Your task to perform on an android device: Show me the alarms in the clock app Image 0: 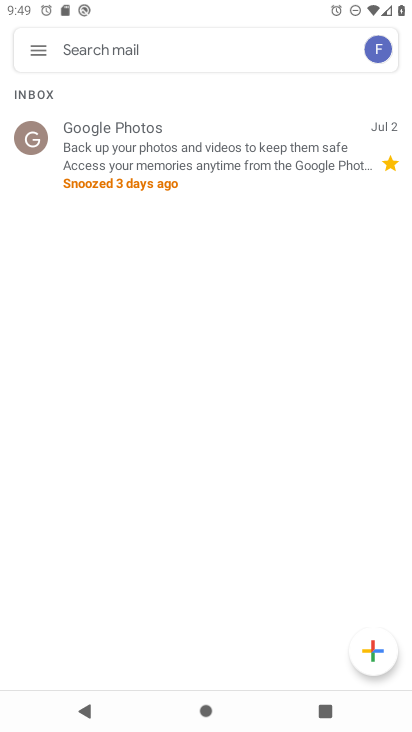
Step 0: press home button
Your task to perform on an android device: Show me the alarms in the clock app Image 1: 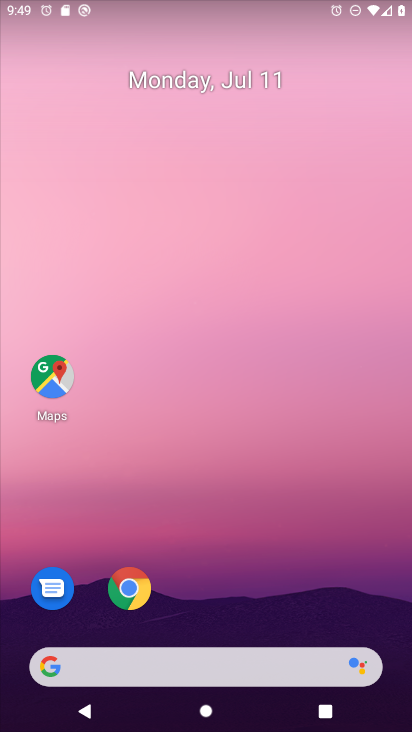
Step 1: drag from (202, 667) to (309, 190)
Your task to perform on an android device: Show me the alarms in the clock app Image 2: 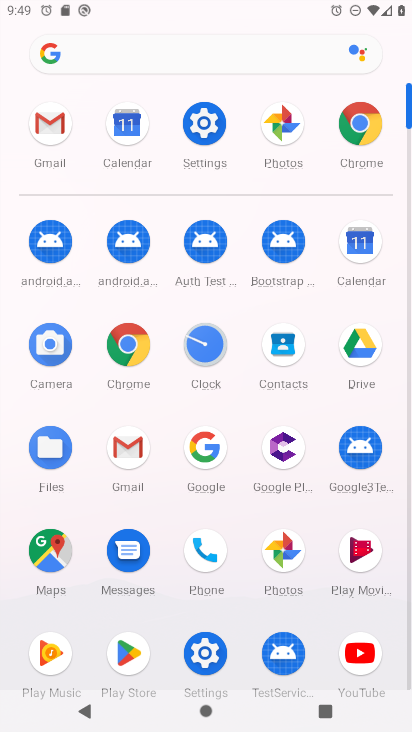
Step 2: click (210, 336)
Your task to perform on an android device: Show me the alarms in the clock app Image 3: 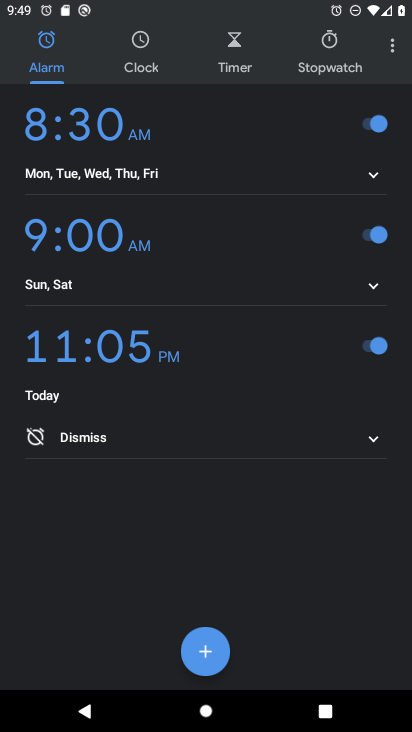
Step 3: task complete